Your task to perform on an android device: Check the news Image 0: 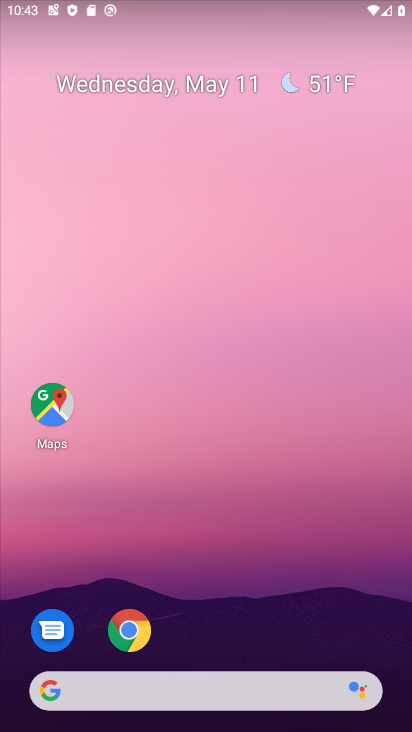
Step 0: drag from (5, 237) to (183, 716)
Your task to perform on an android device: Check the news Image 1: 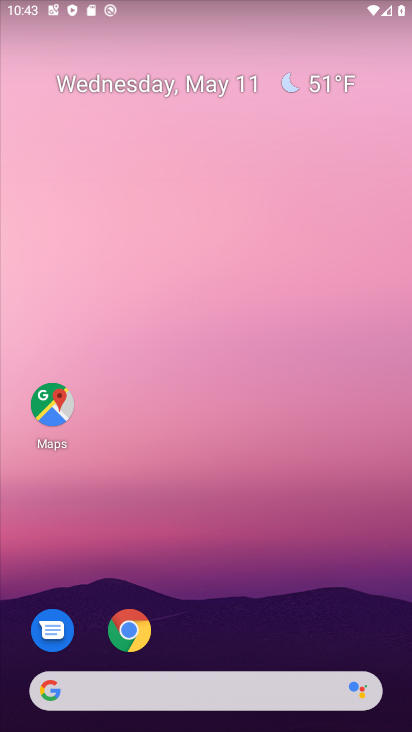
Step 1: task complete